Your task to perform on an android device: Open the web browser Image 0: 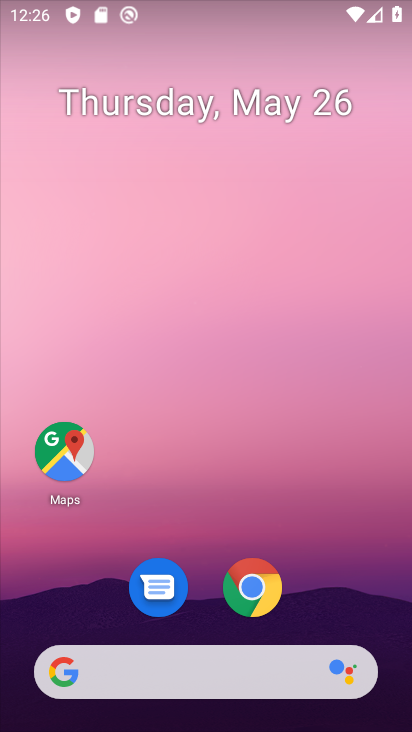
Step 0: drag from (365, 614) to (372, 314)
Your task to perform on an android device: Open the web browser Image 1: 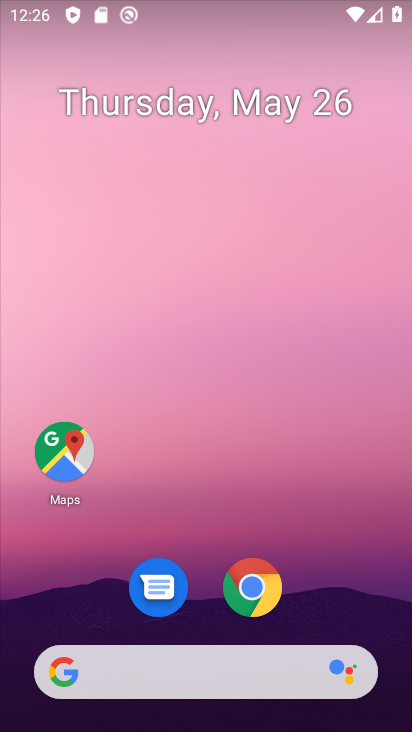
Step 1: drag from (382, 612) to (389, 211)
Your task to perform on an android device: Open the web browser Image 2: 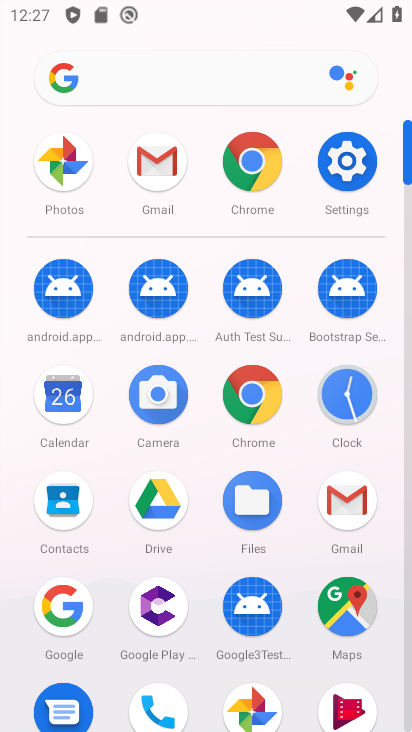
Step 2: click (260, 407)
Your task to perform on an android device: Open the web browser Image 3: 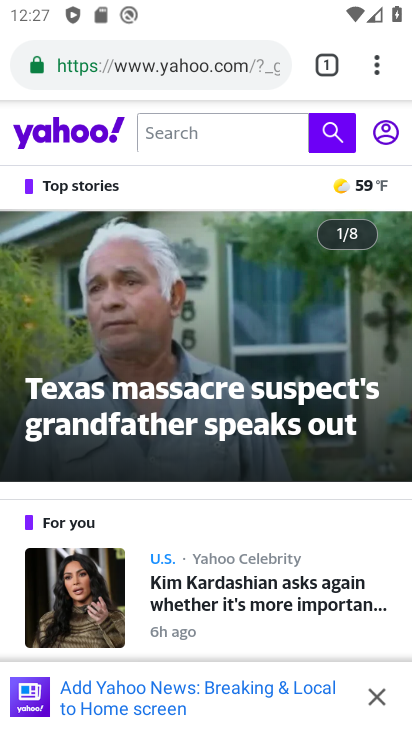
Step 3: task complete